Your task to perform on an android device: Search for "razer nari" on amazon, select the first entry, and add it to the cart. Image 0: 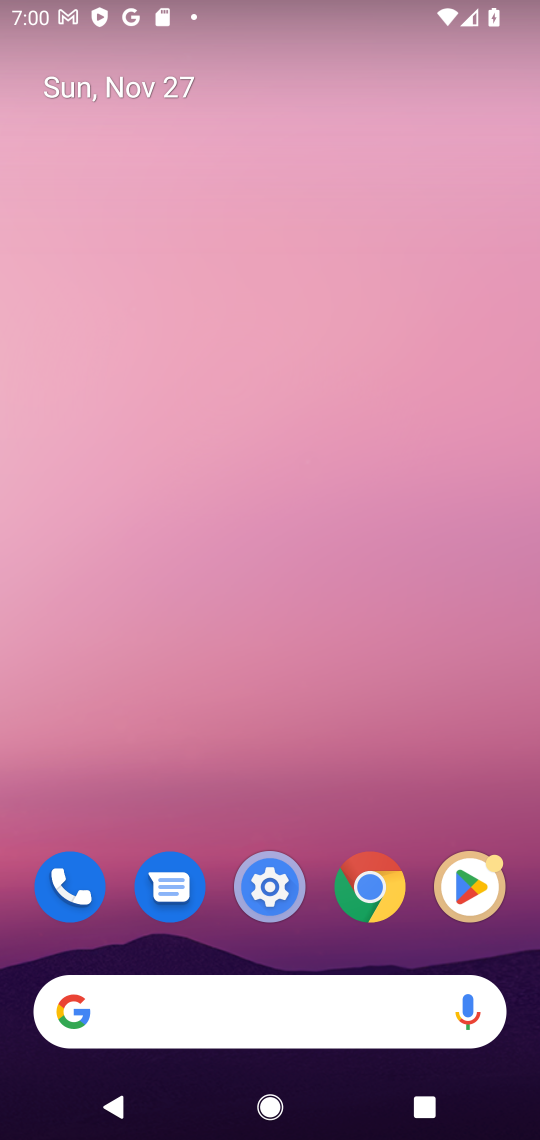
Step 0: click (160, 1014)
Your task to perform on an android device: Search for "razer nari" on amazon, select the first entry, and add it to the cart. Image 1: 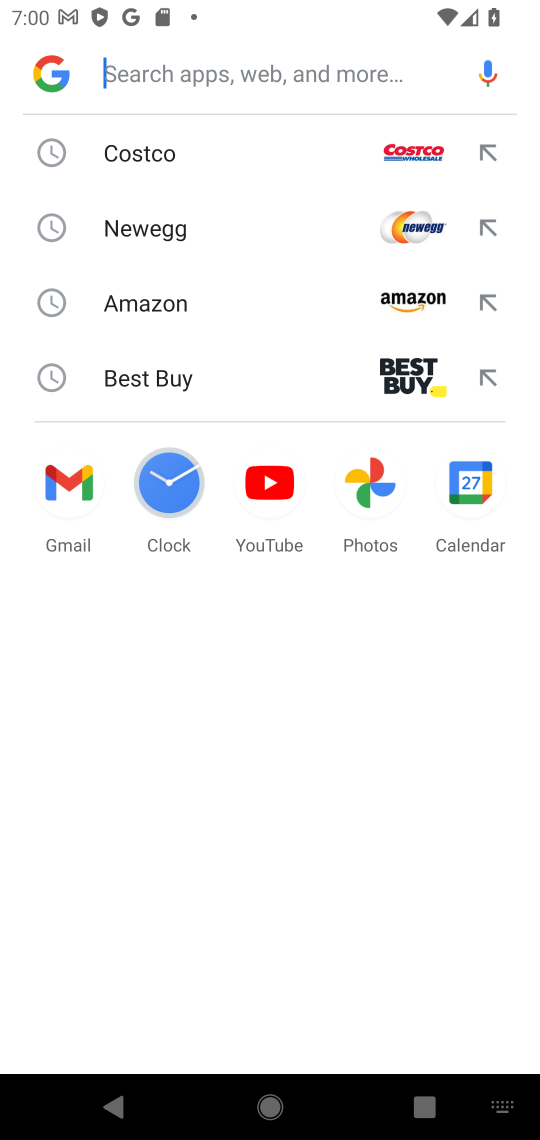
Step 1: type "amazon"
Your task to perform on an android device: Search for "razer nari" on amazon, select the first entry, and add it to the cart. Image 2: 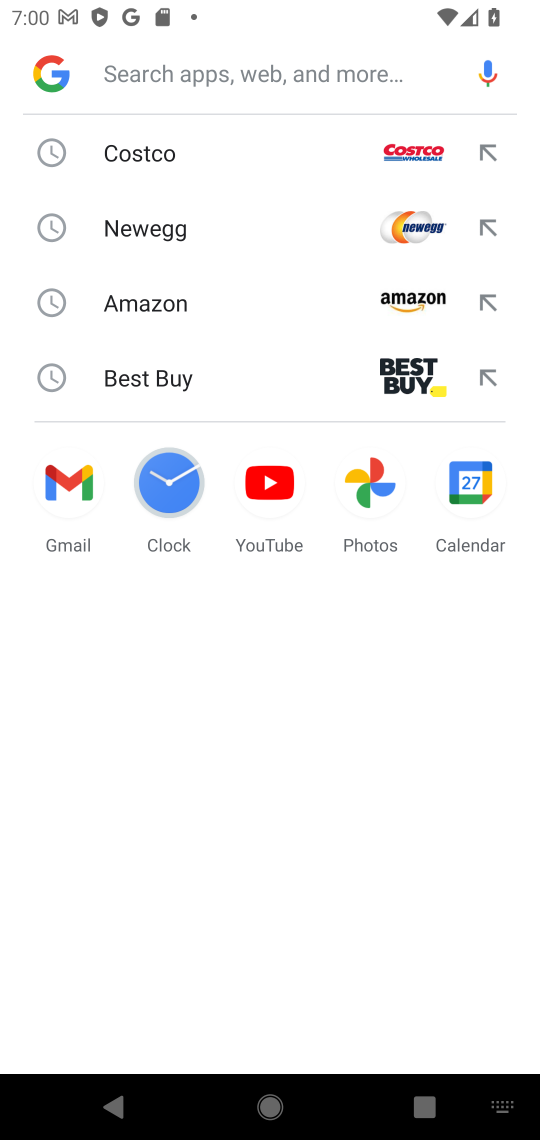
Step 2: click (133, 299)
Your task to perform on an android device: Search for "razer nari" on amazon, select the first entry, and add it to the cart. Image 3: 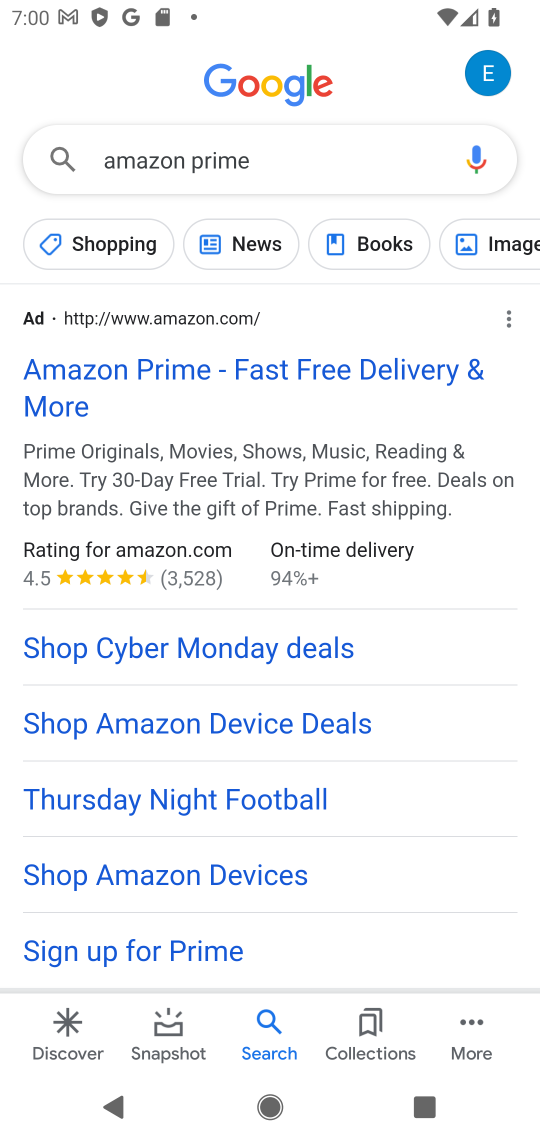
Step 3: click (143, 380)
Your task to perform on an android device: Search for "razer nari" on amazon, select the first entry, and add it to the cart. Image 4: 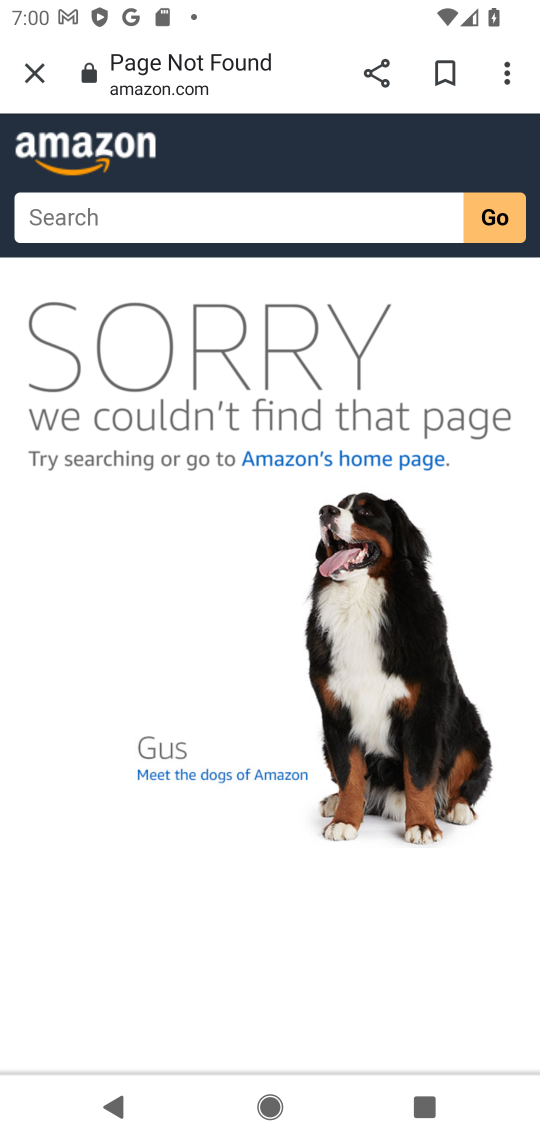
Step 4: click (301, 215)
Your task to perform on an android device: Search for "razer nari" on amazon, select the first entry, and add it to the cart. Image 5: 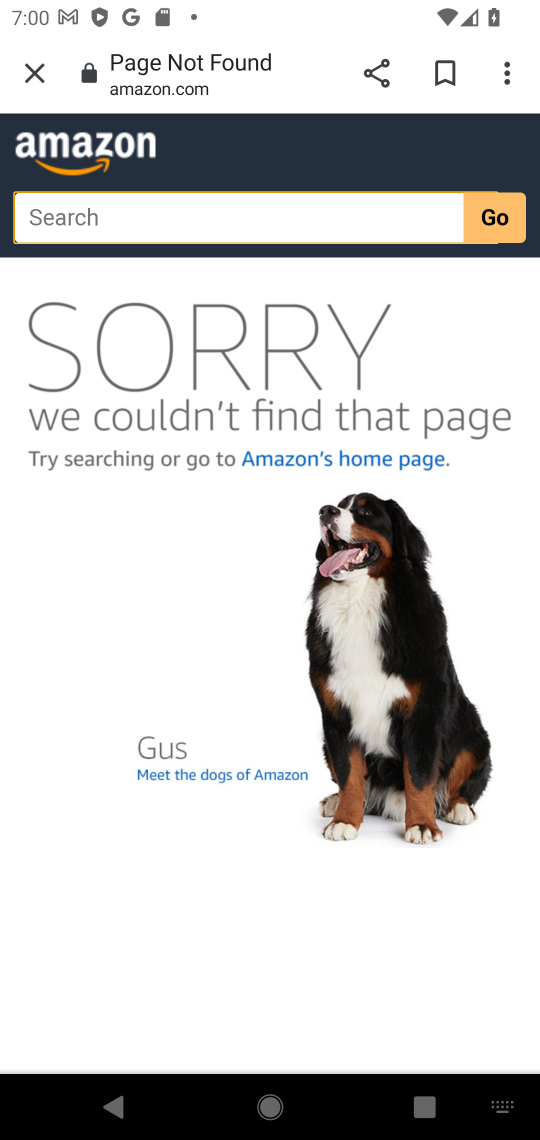
Step 5: type "razer nari"
Your task to perform on an android device: Search for "razer nari" on amazon, select the first entry, and add it to the cart. Image 6: 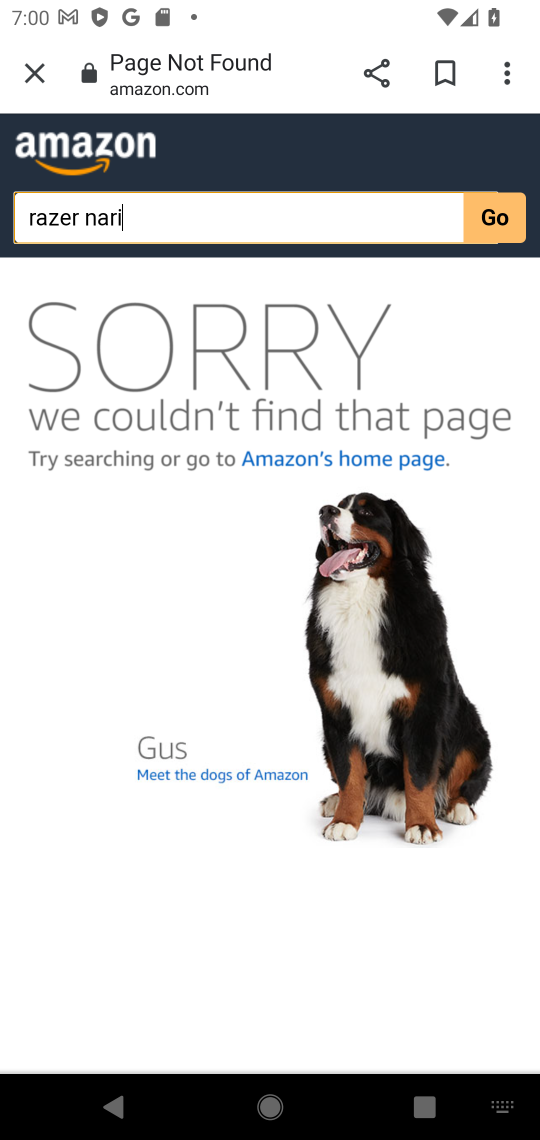
Step 6: click (476, 240)
Your task to perform on an android device: Search for "razer nari" on amazon, select the first entry, and add it to the cart. Image 7: 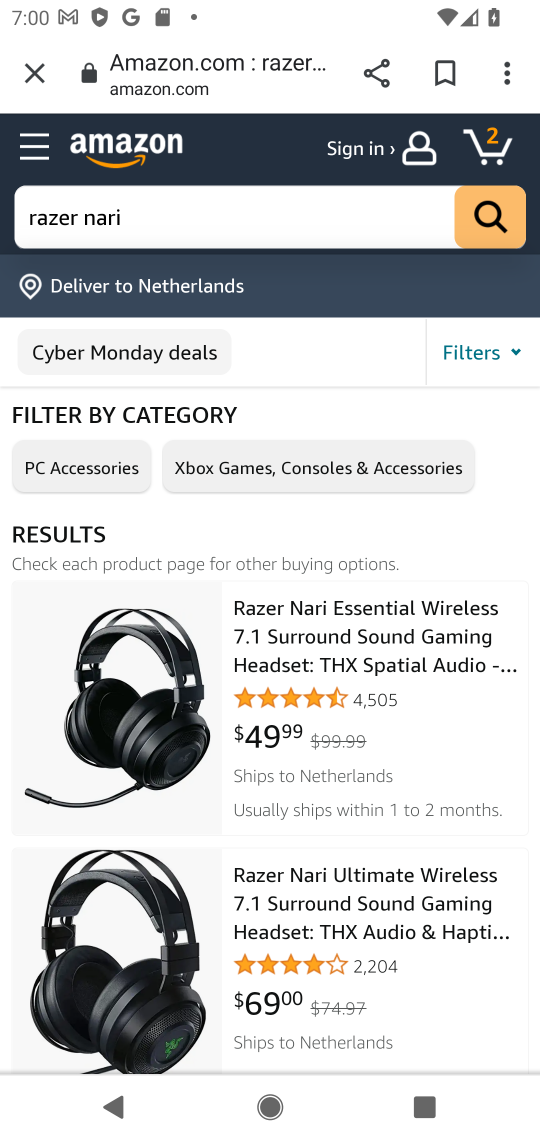
Step 7: click (425, 650)
Your task to perform on an android device: Search for "razer nari" on amazon, select the first entry, and add it to the cart. Image 8: 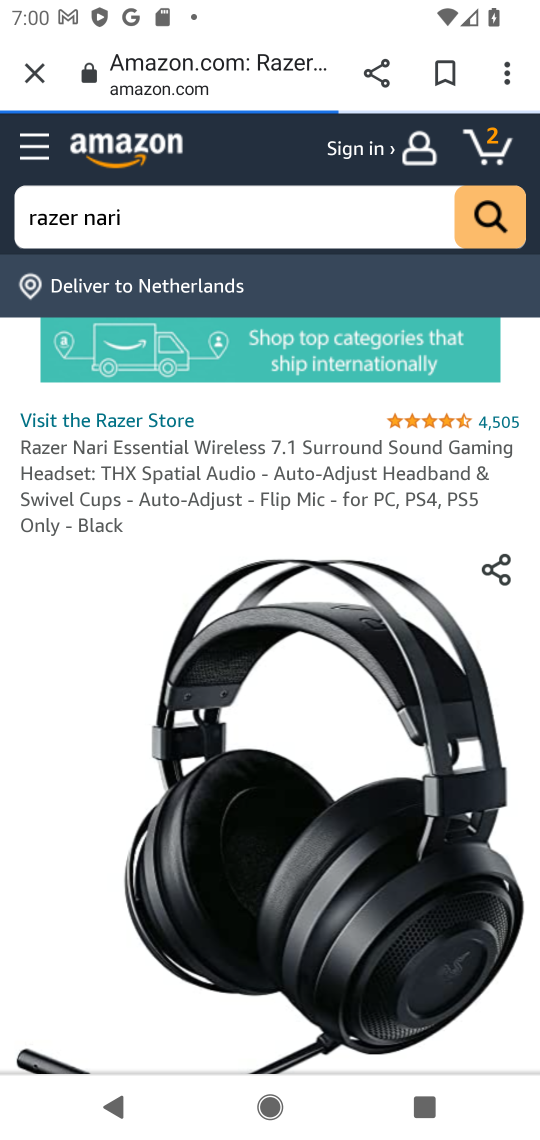
Step 8: drag from (123, 935) to (155, 702)
Your task to perform on an android device: Search for "razer nari" on amazon, select the first entry, and add it to the cart. Image 9: 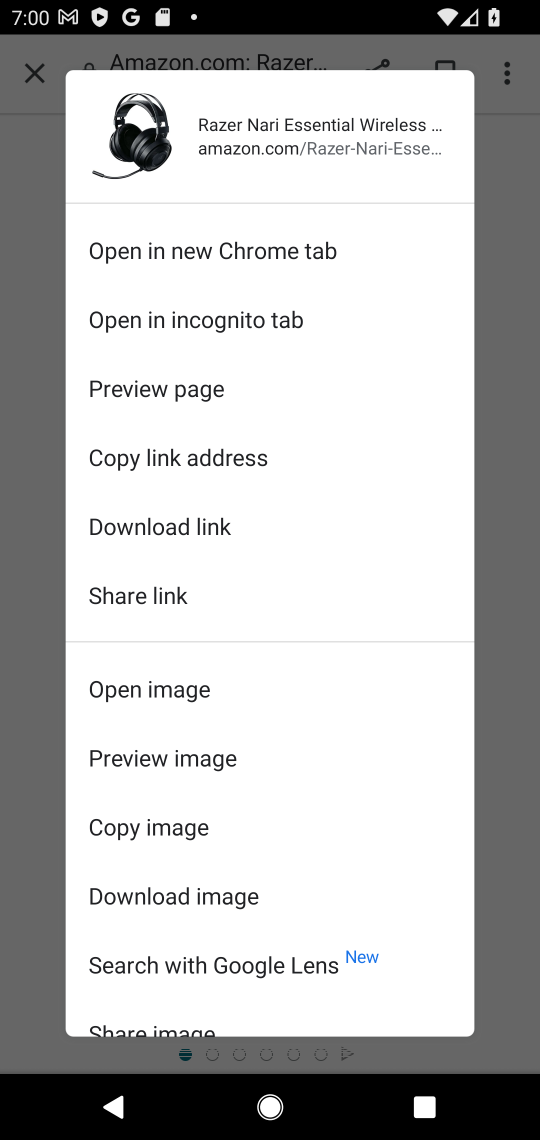
Step 9: click (40, 876)
Your task to perform on an android device: Search for "razer nari" on amazon, select the first entry, and add it to the cart. Image 10: 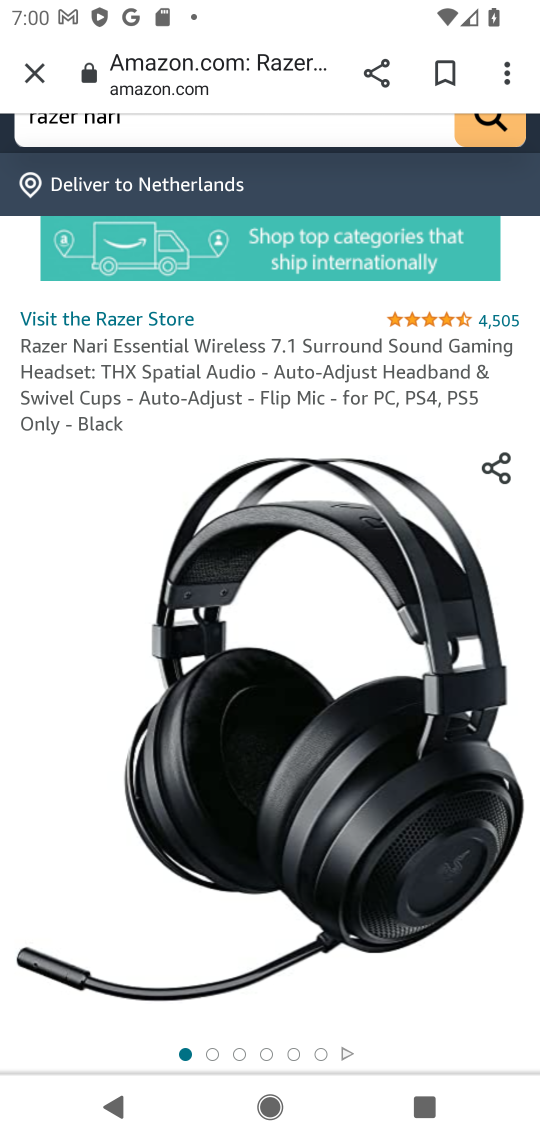
Step 10: drag from (198, 951) to (207, 501)
Your task to perform on an android device: Search for "razer nari" on amazon, select the first entry, and add it to the cart. Image 11: 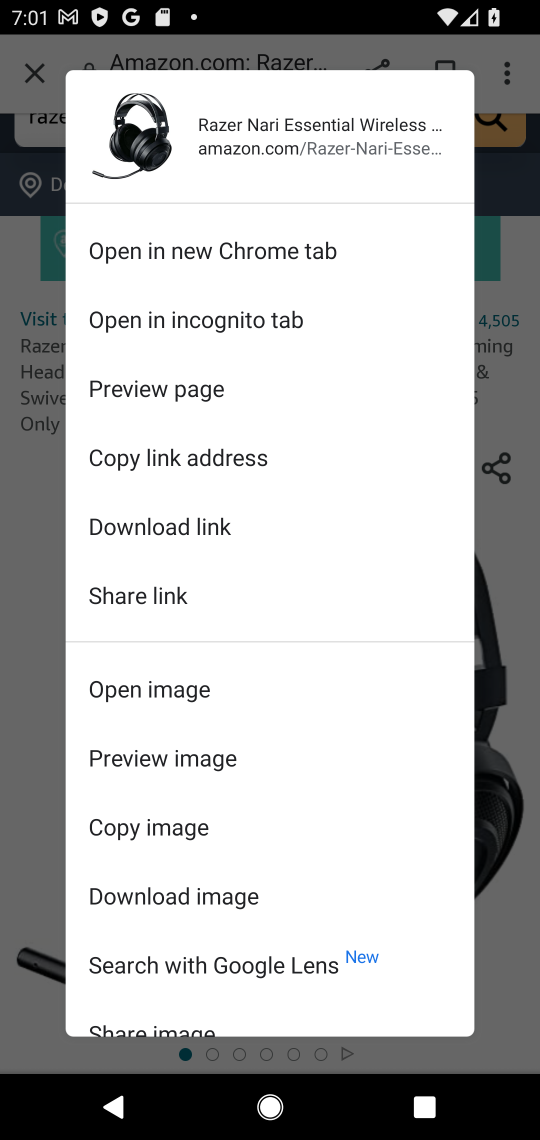
Step 11: click (7, 802)
Your task to perform on an android device: Search for "razer nari" on amazon, select the first entry, and add it to the cart. Image 12: 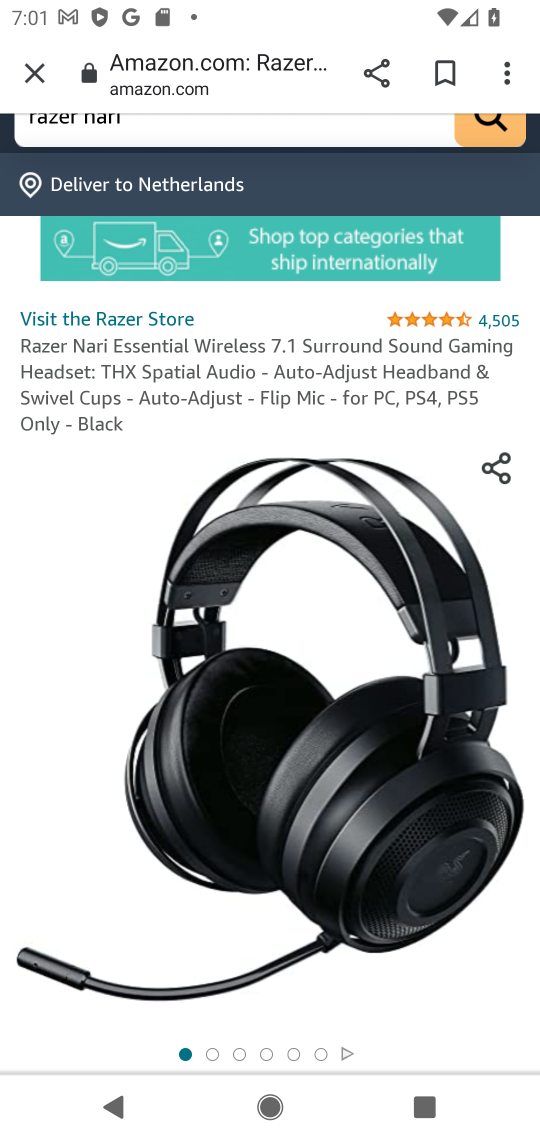
Step 12: drag from (229, 902) to (304, 392)
Your task to perform on an android device: Search for "razer nari" on amazon, select the first entry, and add it to the cart. Image 13: 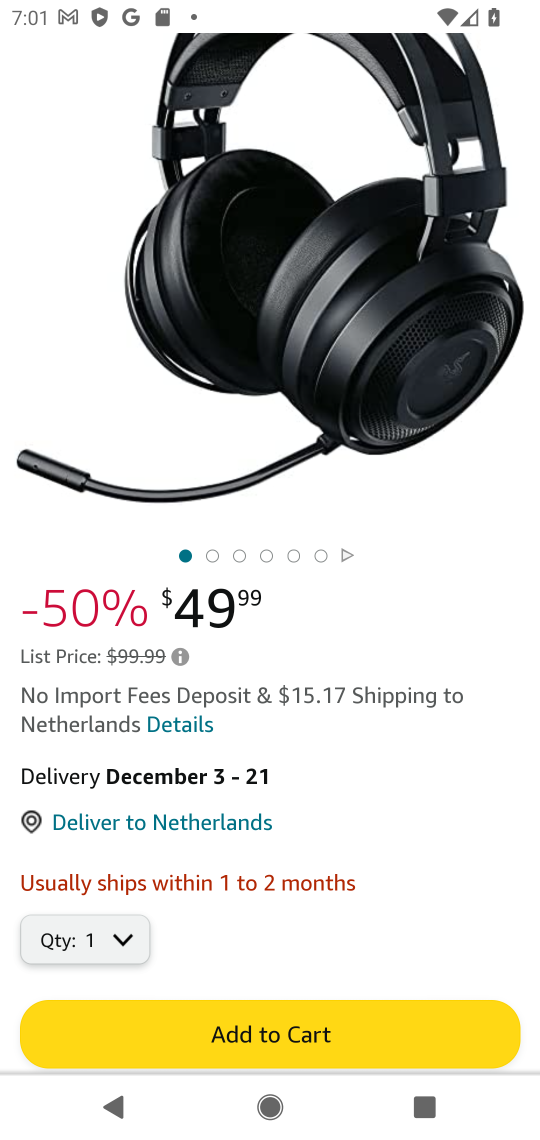
Step 13: click (274, 1030)
Your task to perform on an android device: Search for "razer nari" on amazon, select the first entry, and add it to the cart. Image 14: 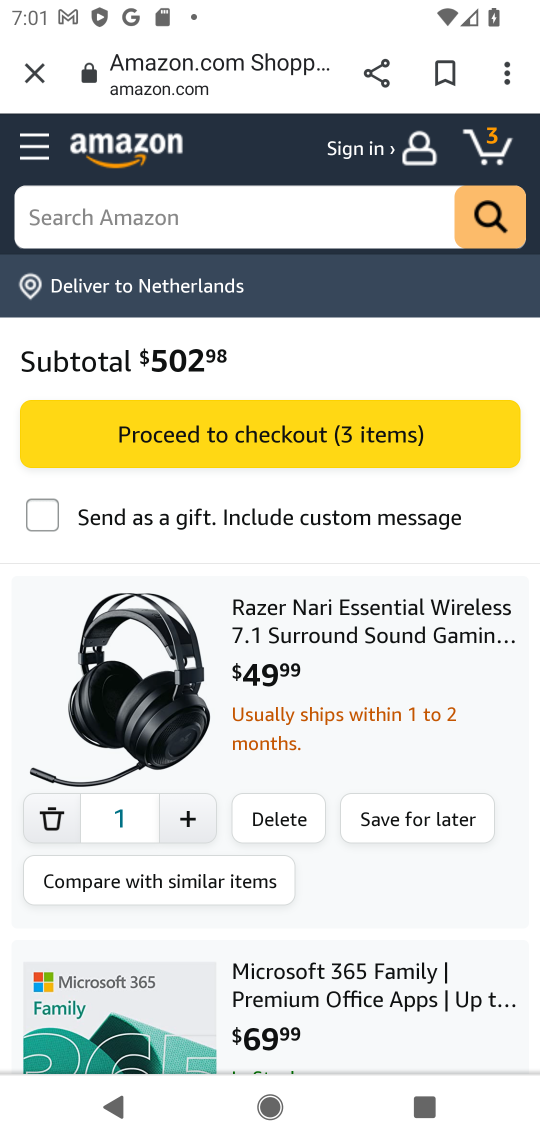
Step 14: task complete